Your task to perform on an android device: turn smart compose on in the gmail app Image 0: 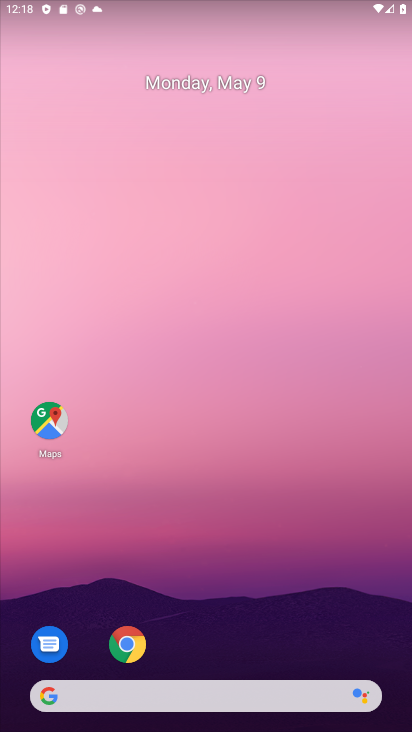
Step 0: drag from (355, 665) to (55, 1)
Your task to perform on an android device: turn smart compose on in the gmail app Image 1: 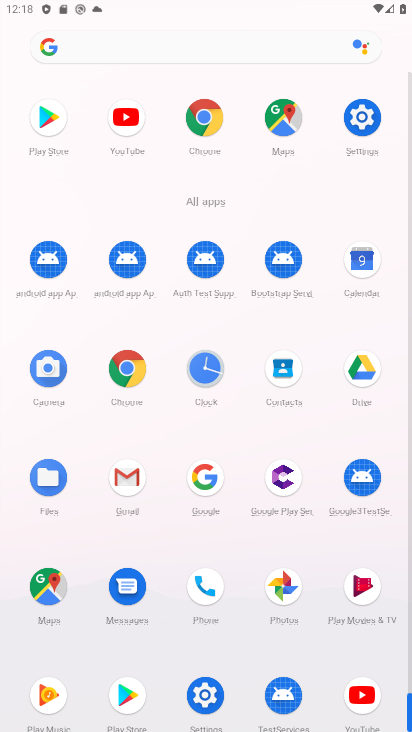
Step 1: click (119, 485)
Your task to perform on an android device: turn smart compose on in the gmail app Image 2: 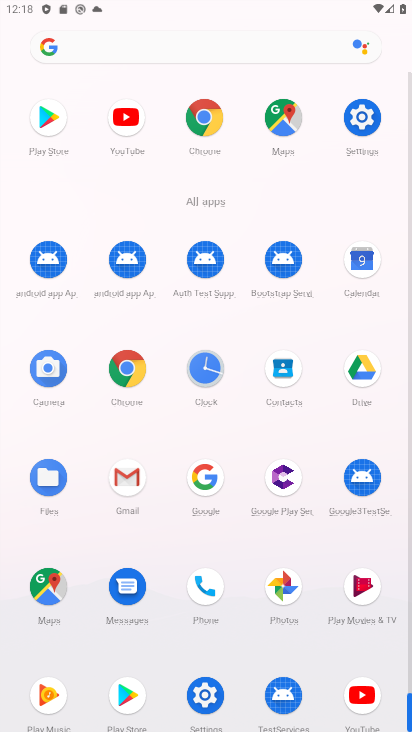
Step 2: click (119, 485)
Your task to perform on an android device: turn smart compose on in the gmail app Image 3: 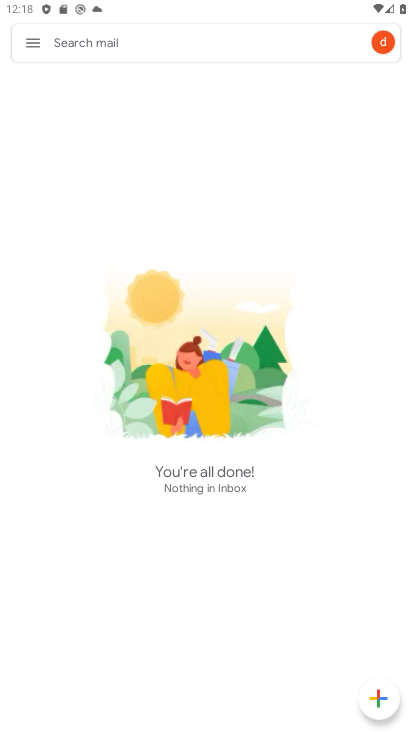
Step 3: drag from (42, 35) to (25, 66)
Your task to perform on an android device: turn smart compose on in the gmail app Image 4: 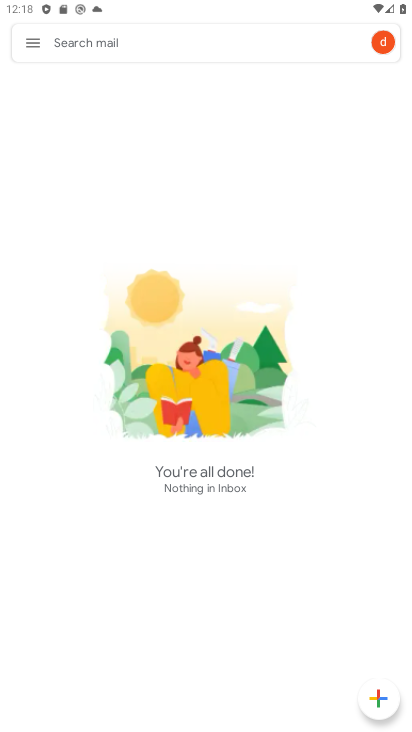
Step 4: drag from (39, 39) to (61, 548)
Your task to perform on an android device: turn smart compose on in the gmail app Image 5: 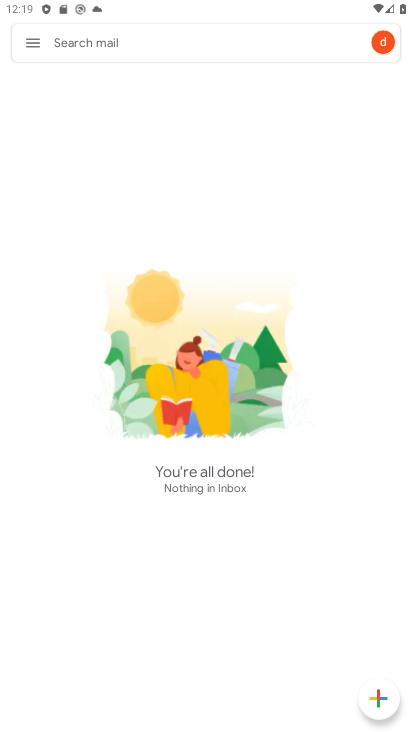
Step 5: click (39, 40)
Your task to perform on an android device: turn smart compose on in the gmail app Image 6: 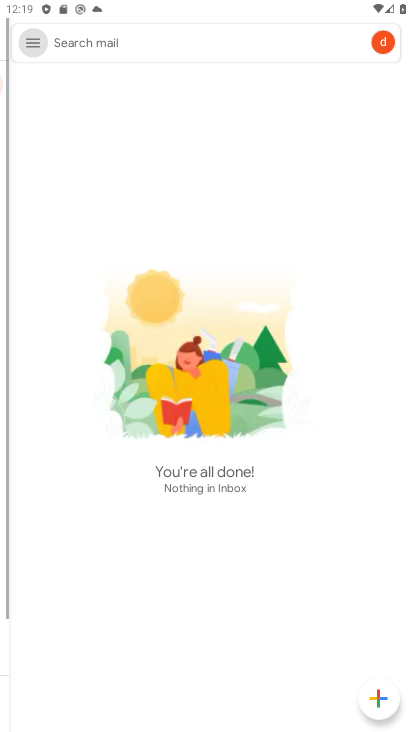
Step 6: click (39, 40)
Your task to perform on an android device: turn smart compose on in the gmail app Image 7: 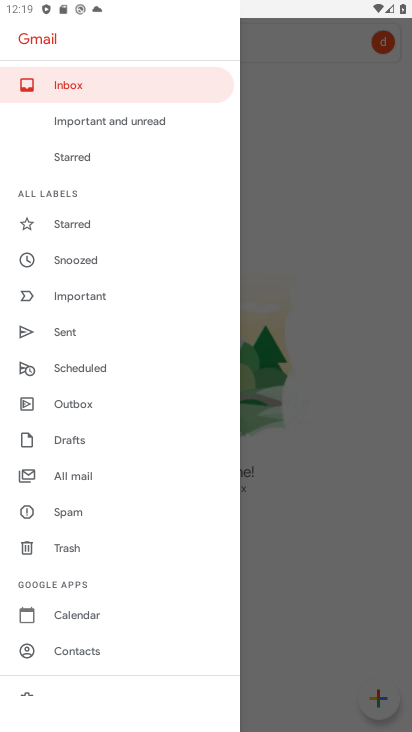
Step 7: drag from (113, 559) to (88, 153)
Your task to perform on an android device: turn smart compose on in the gmail app Image 8: 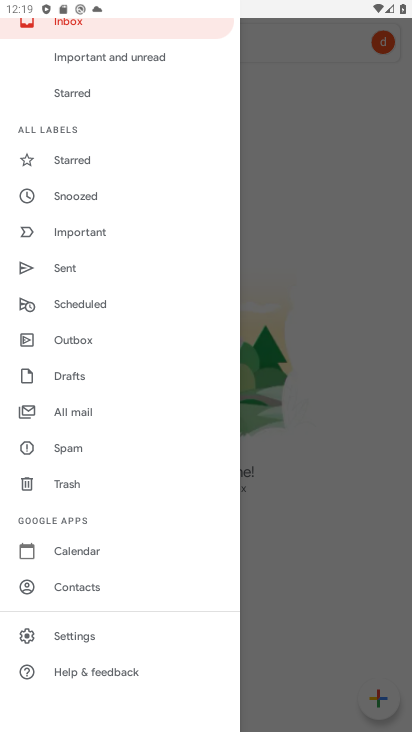
Step 8: click (60, 638)
Your task to perform on an android device: turn smart compose on in the gmail app Image 9: 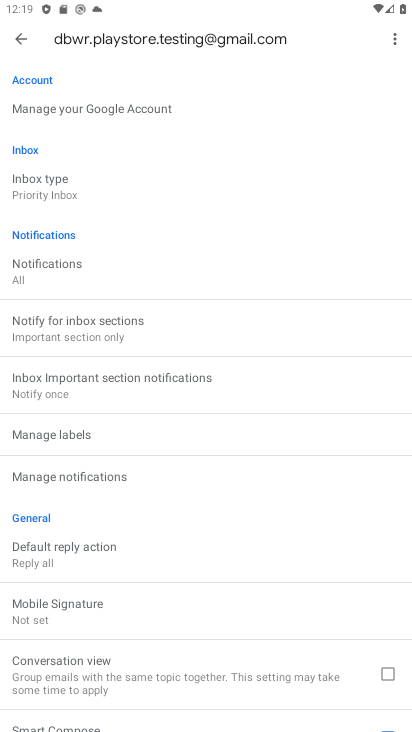
Step 9: task complete